Your task to perform on an android device: install app "Reddit" Image 0: 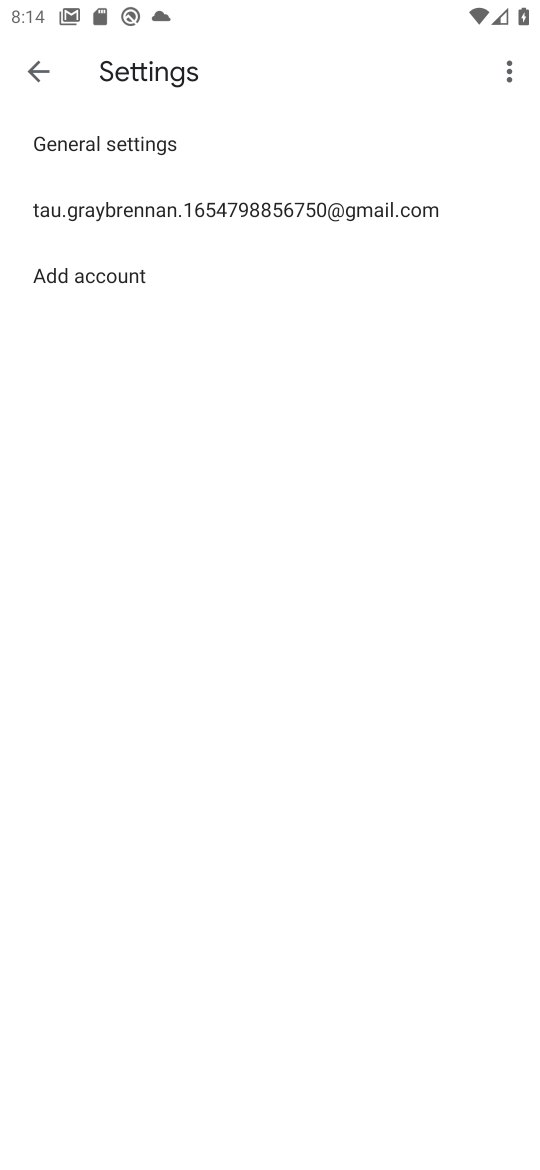
Step 0: press home button
Your task to perform on an android device: install app "Reddit" Image 1: 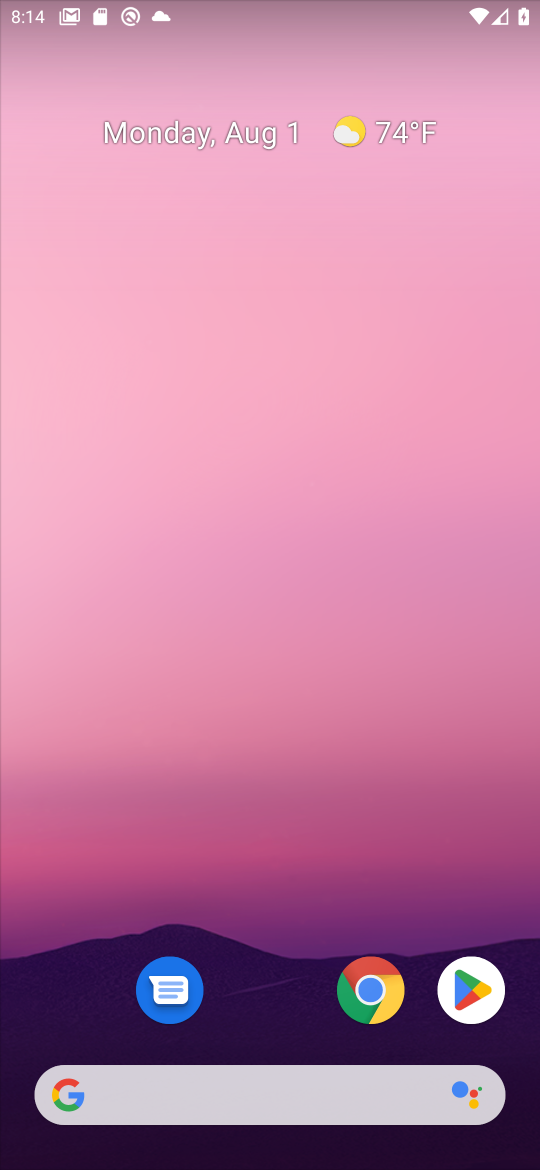
Step 1: click (480, 979)
Your task to perform on an android device: install app "Reddit" Image 2: 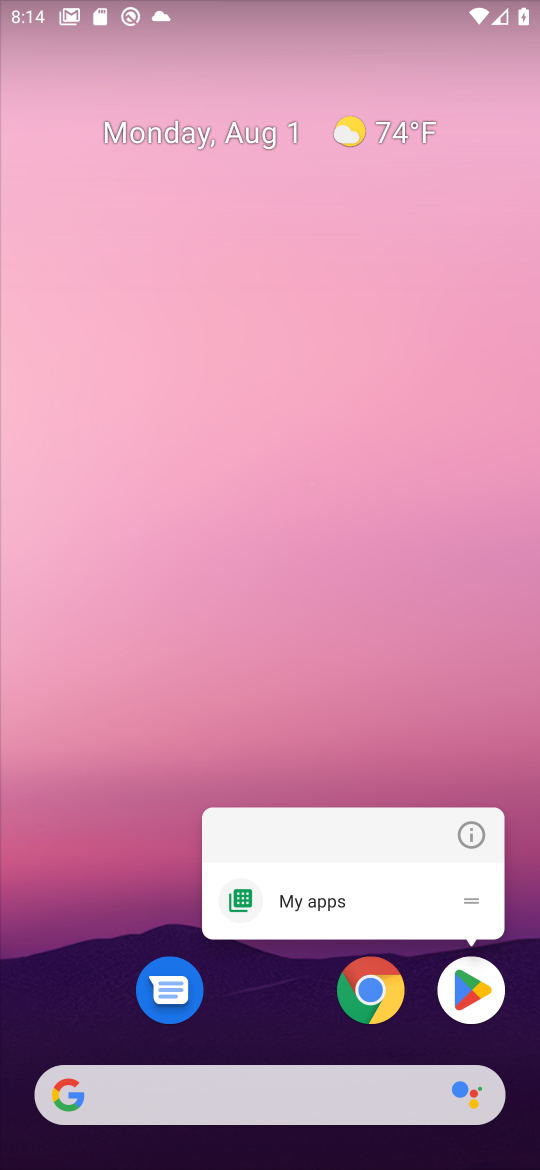
Step 2: click (446, 998)
Your task to perform on an android device: install app "Reddit" Image 3: 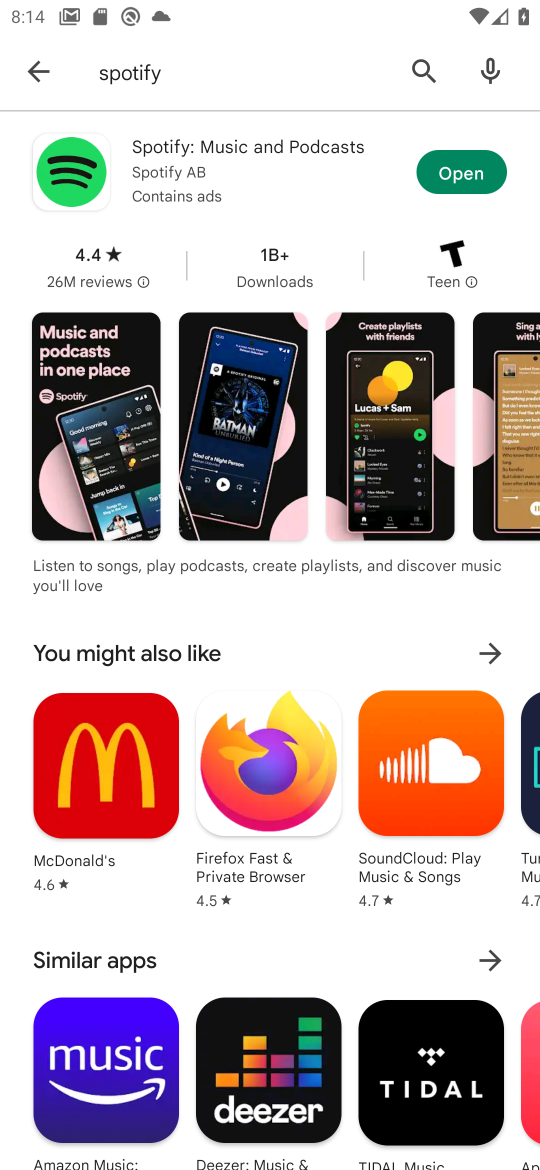
Step 3: click (427, 63)
Your task to perform on an android device: install app "Reddit" Image 4: 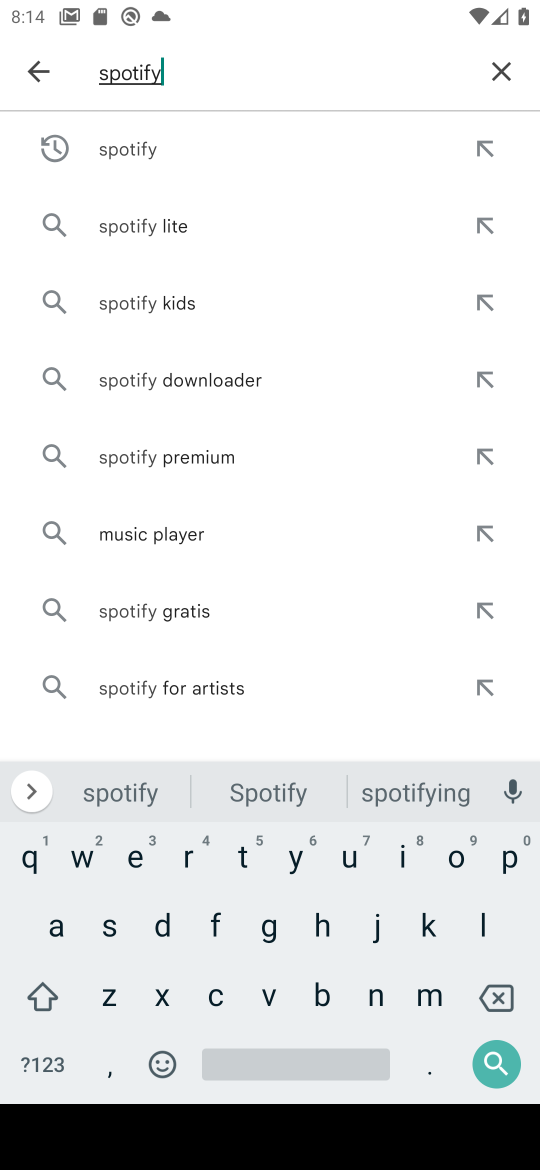
Step 4: click (494, 81)
Your task to perform on an android device: install app "Reddit" Image 5: 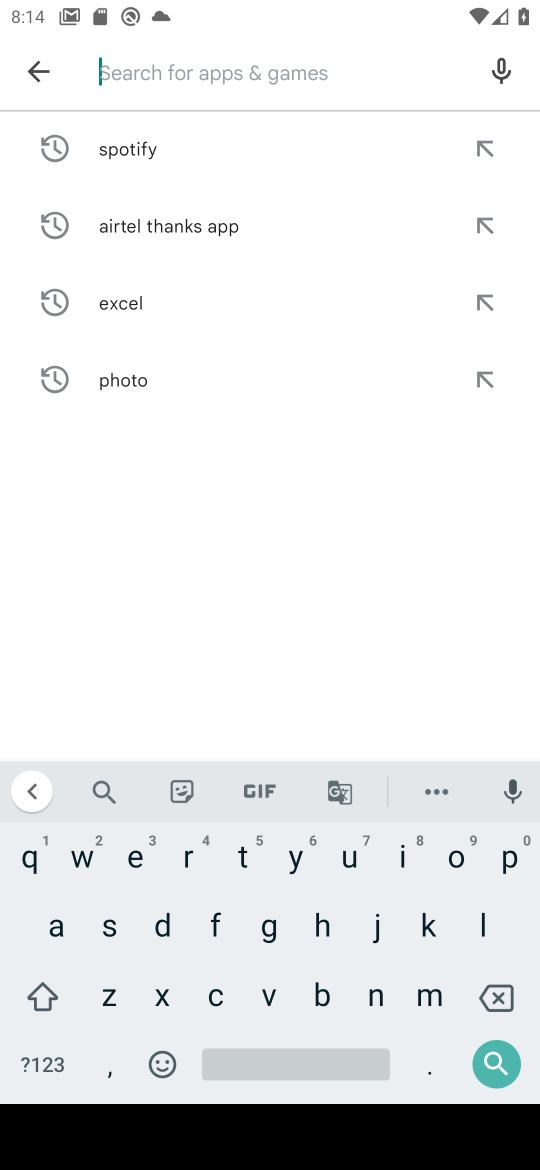
Step 5: click (182, 857)
Your task to perform on an android device: install app "Reddit" Image 6: 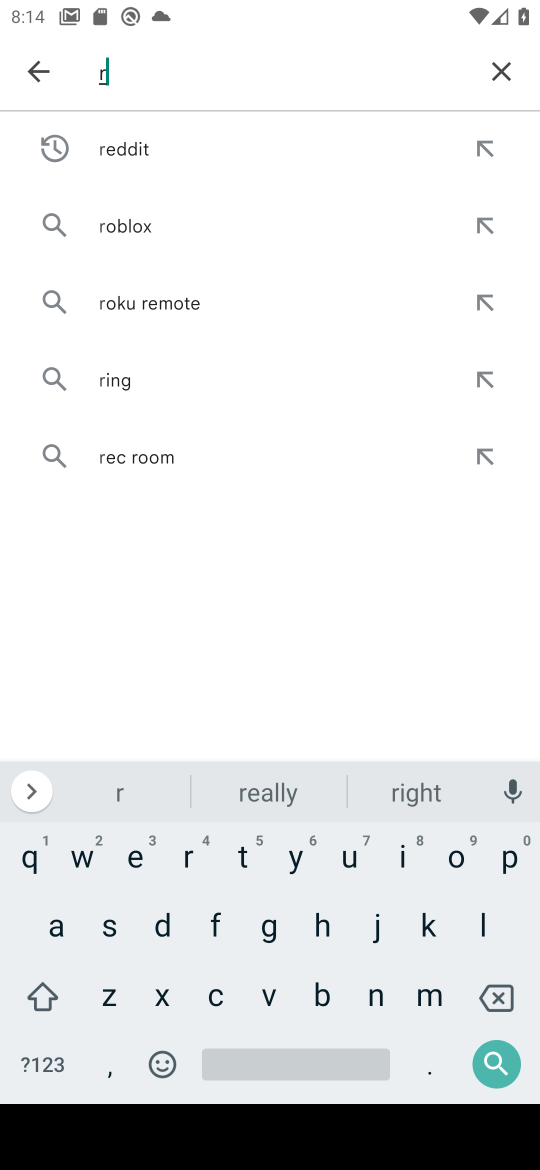
Step 6: click (130, 850)
Your task to perform on an android device: install app "Reddit" Image 7: 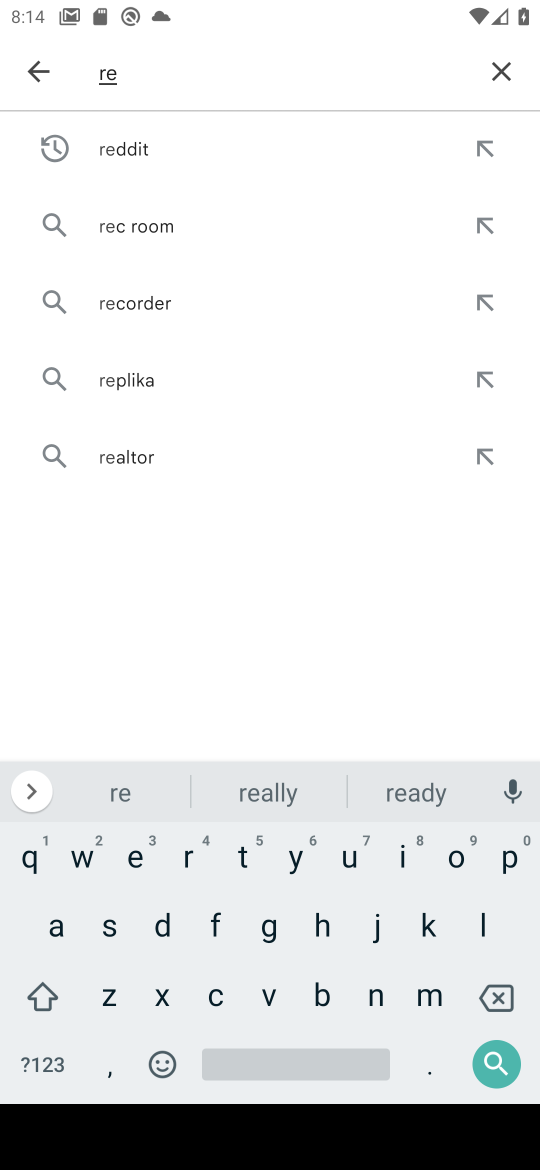
Step 7: click (144, 156)
Your task to perform on an android device: install app "Reddit" Image 8: 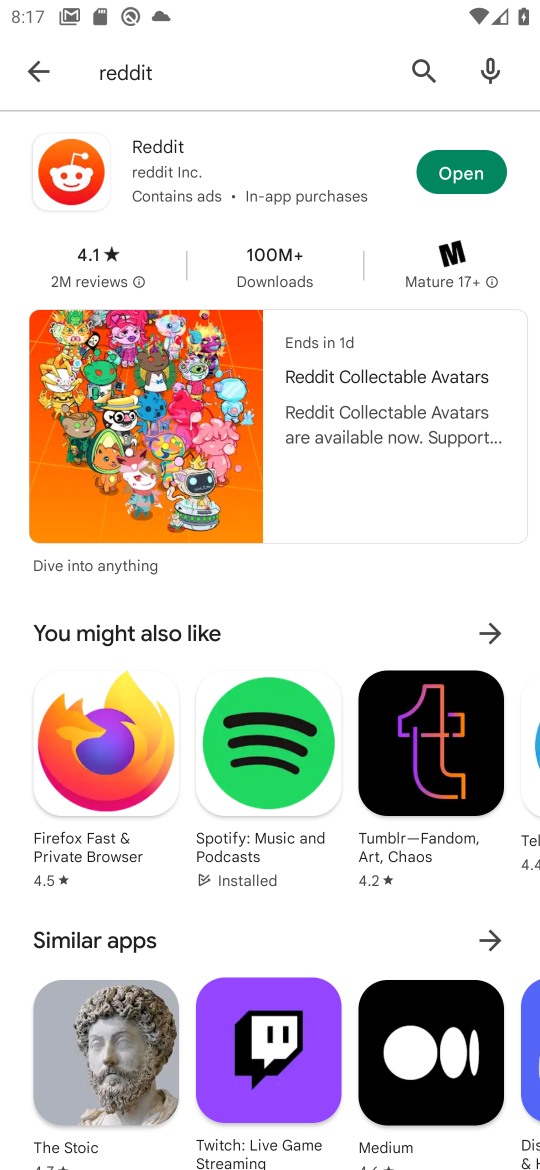
Step 8: task complete